Your task to perform on an android device: Toggle the flashlight Image 0: 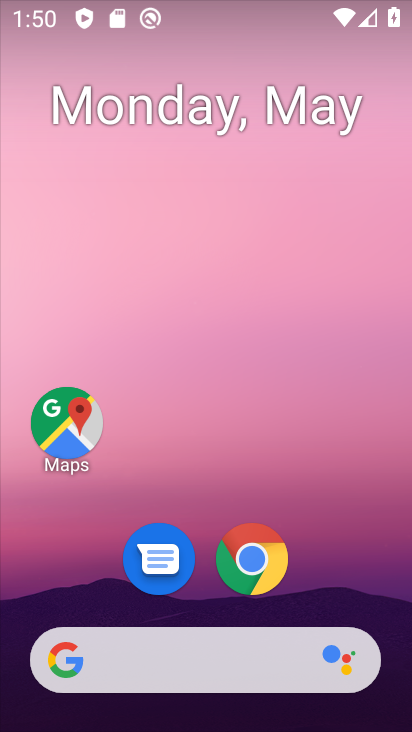
Step 0: drag from (203, 5) to (229, 532)
Your task to perform on an android device: Toggle the flashlight Image 1: 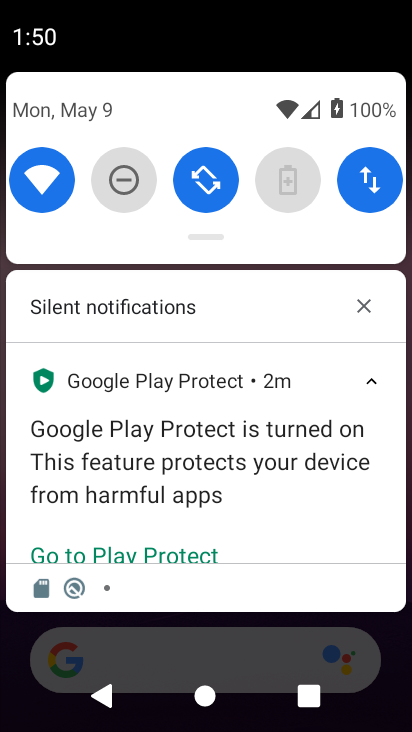
Step 1: task complete